Your task to perform on an android device: install app "Facebook Lite" Image 0: 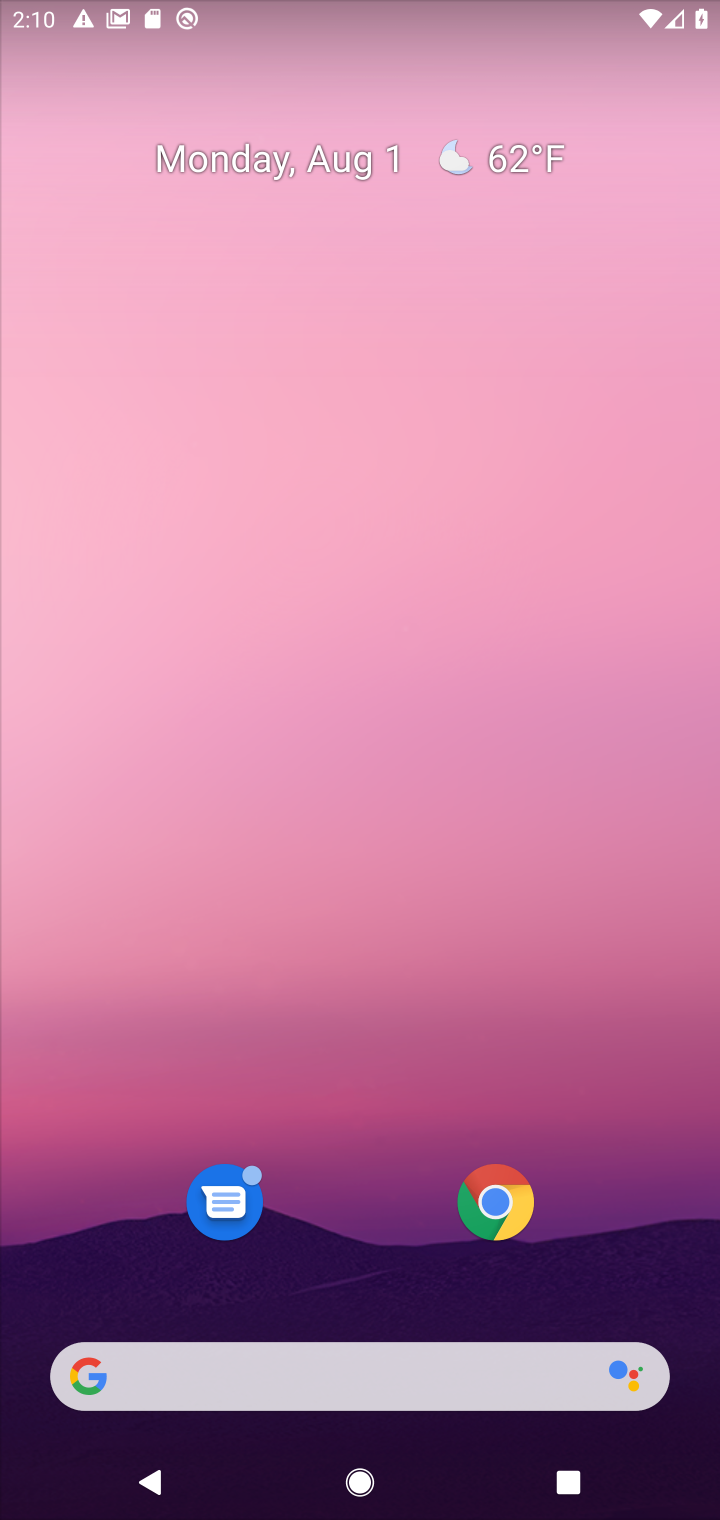
Step 0: drag from (314, 1261) to (94, 0)
Your task to perform on an android device: install app "Facebook Lite" Image 1: 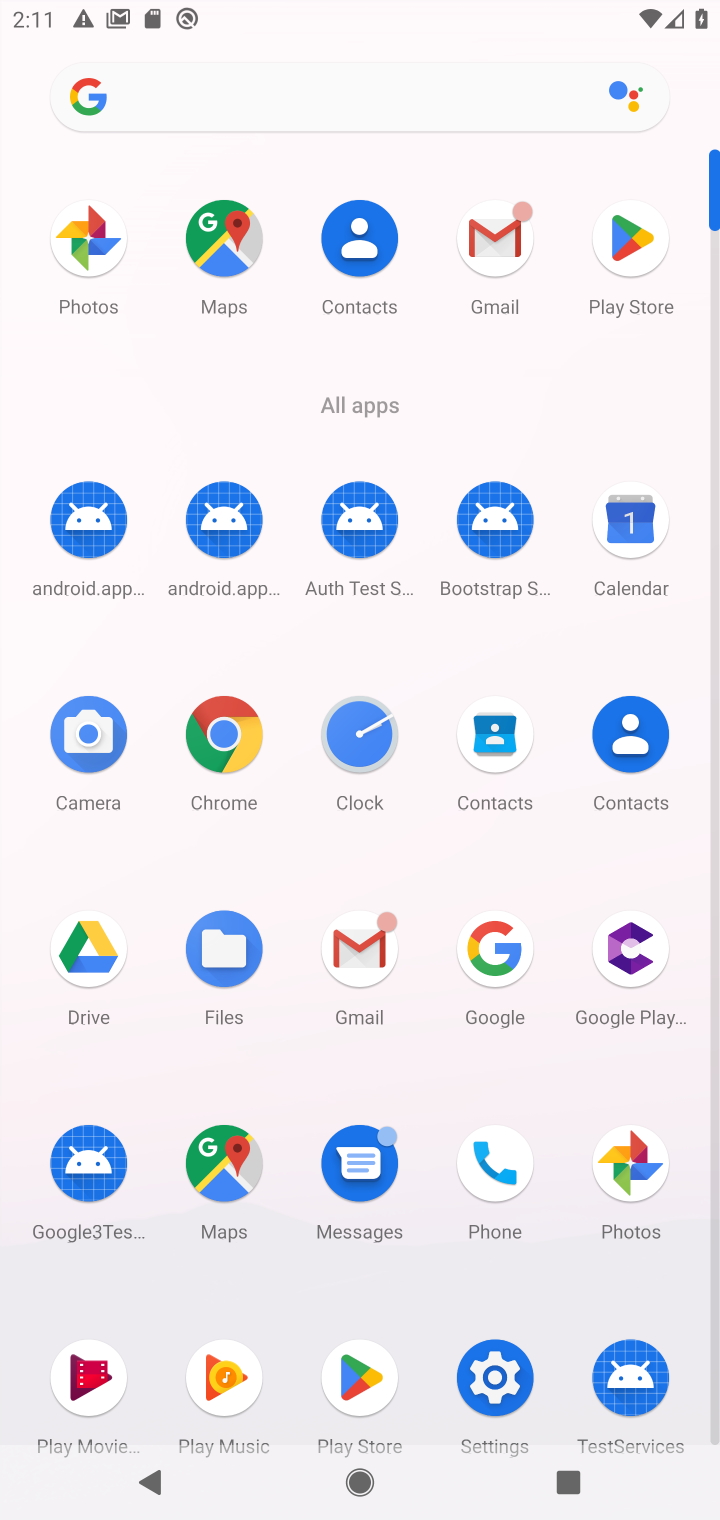
Step 1: click (636, 245)
Your task to perform on an android device: install app "Facebook Lite" Image 2: 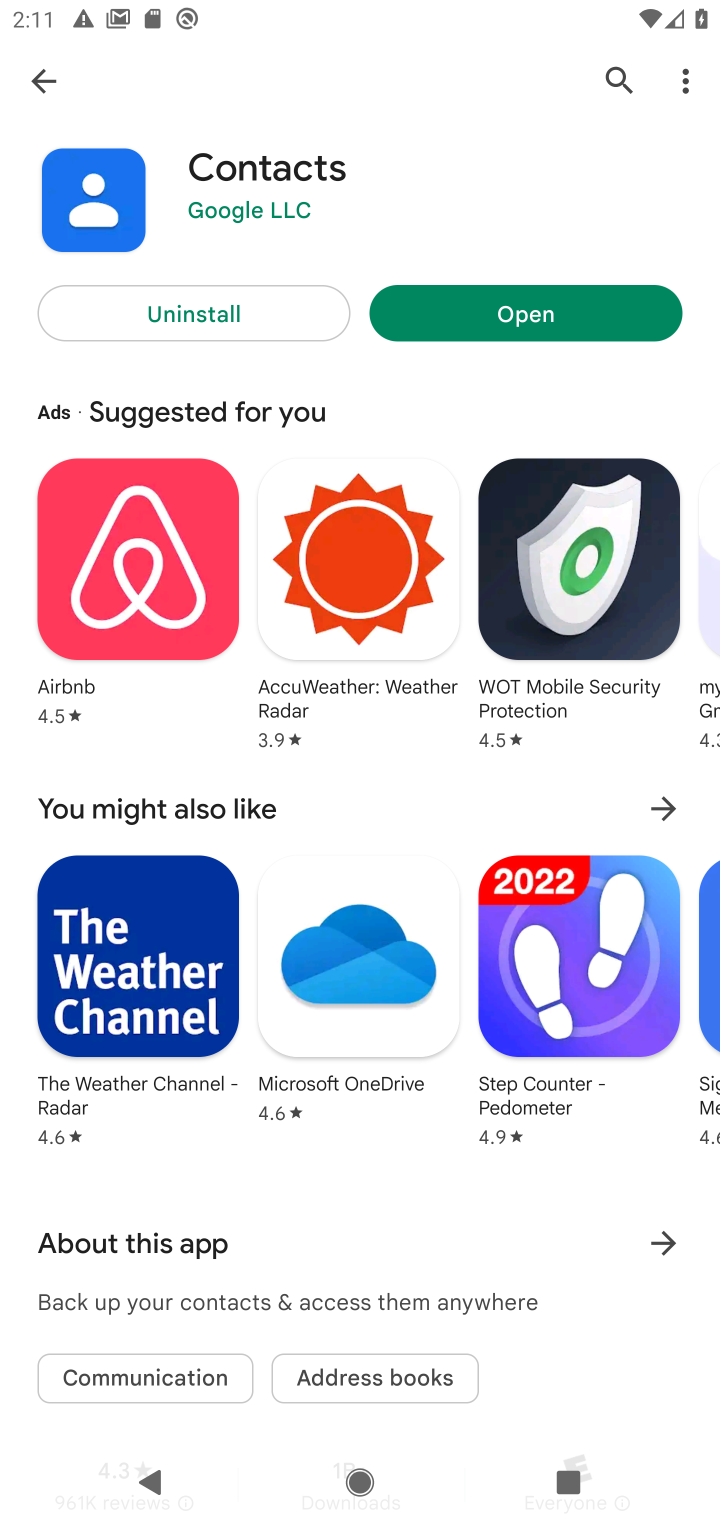
Step 2: click (601, 87)
Your task to perform on an android device: install app "Facebook Lite" Image 3: 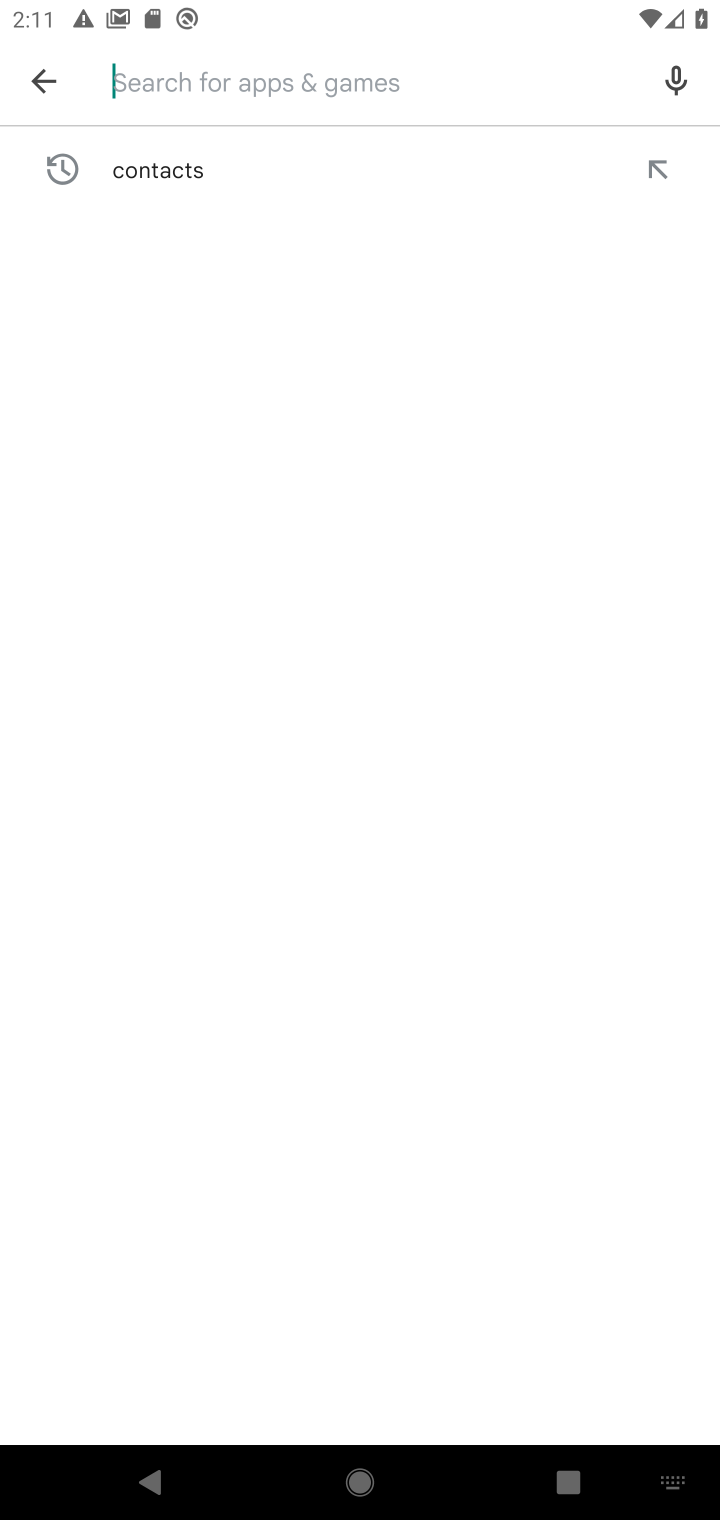
Step 3: type "facebook lite"
Your task to perform on an android device: install app "Facebook Lite" Image 4: 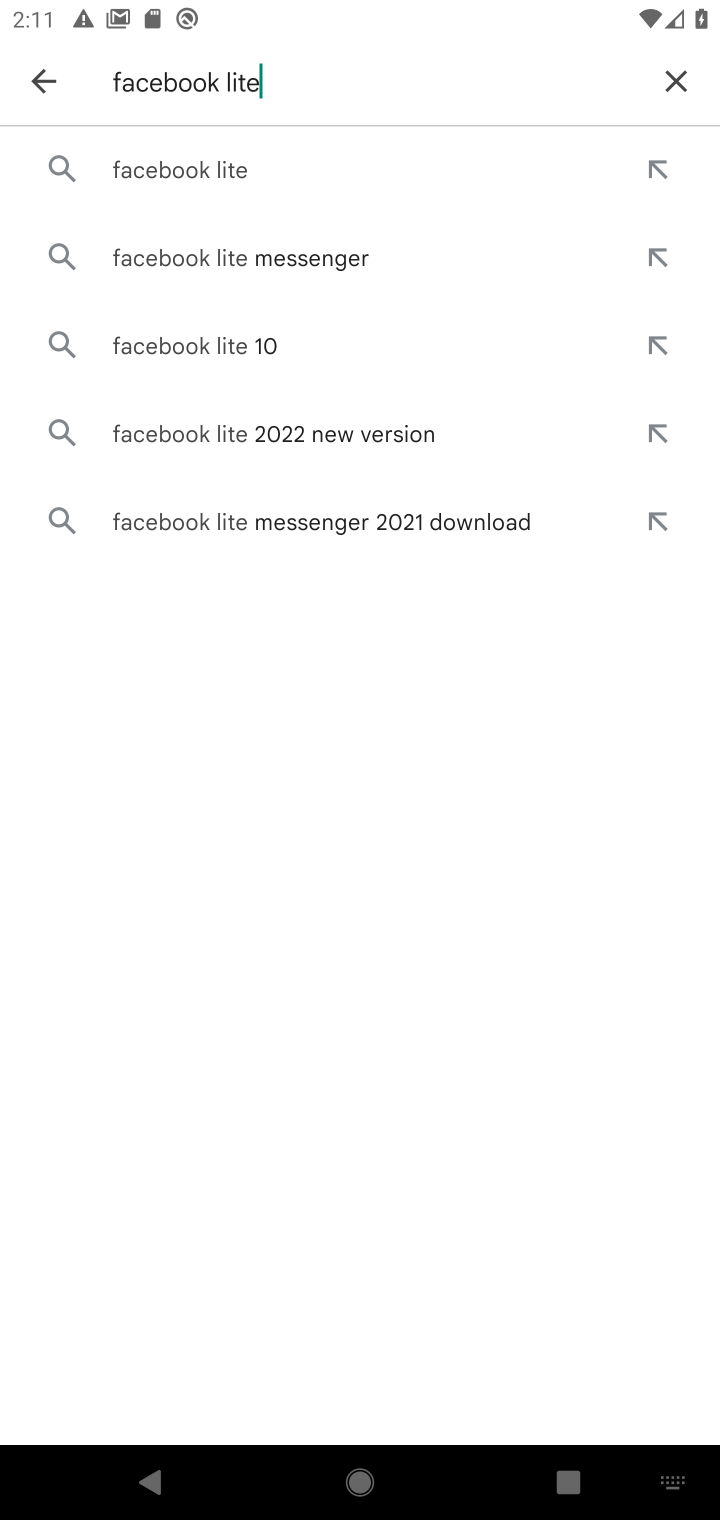
Step 4: click (262, 175)
Your task to perform on an android device: install app "Facebook Lite" Image 5: 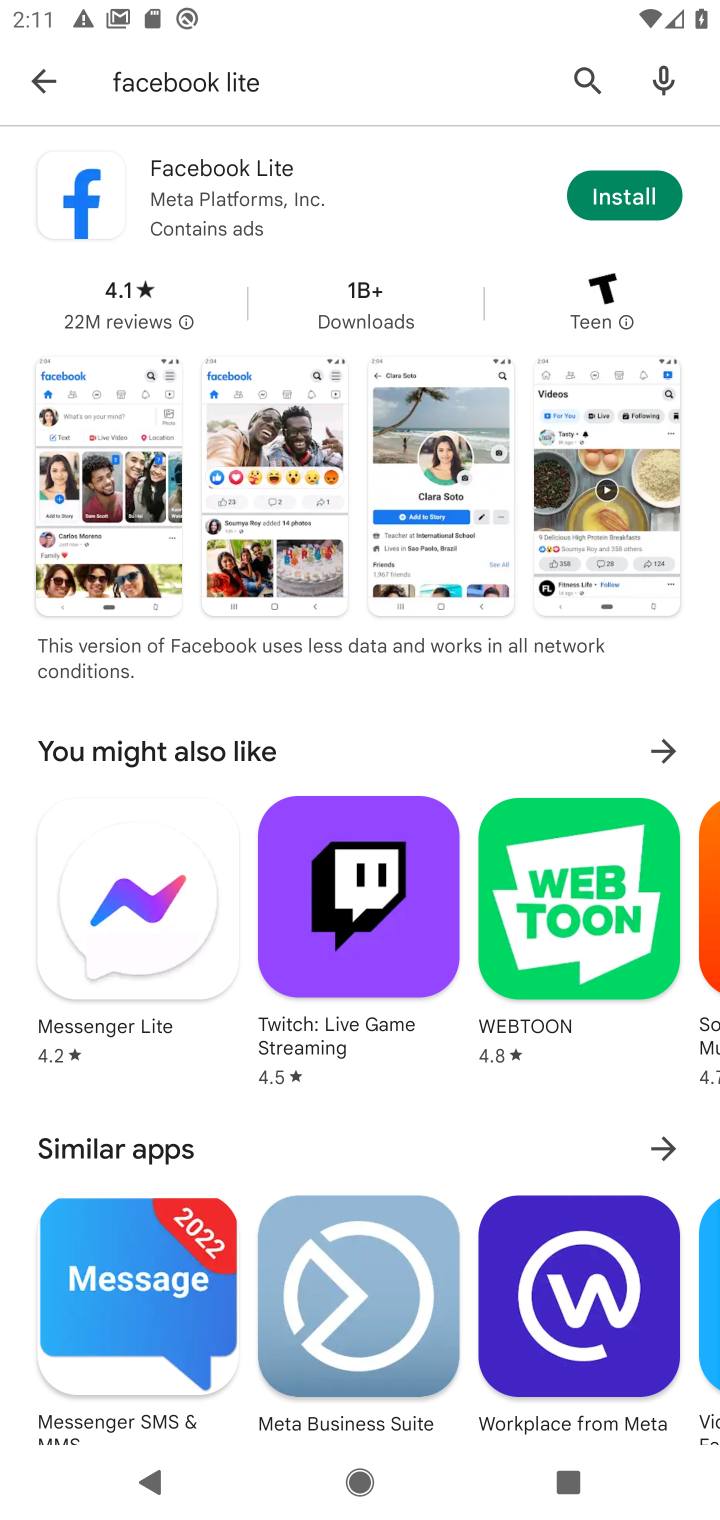
Step 5: click (275, 171)
Your task to perform on an android device: install app "Facebook Lite" Image 6: 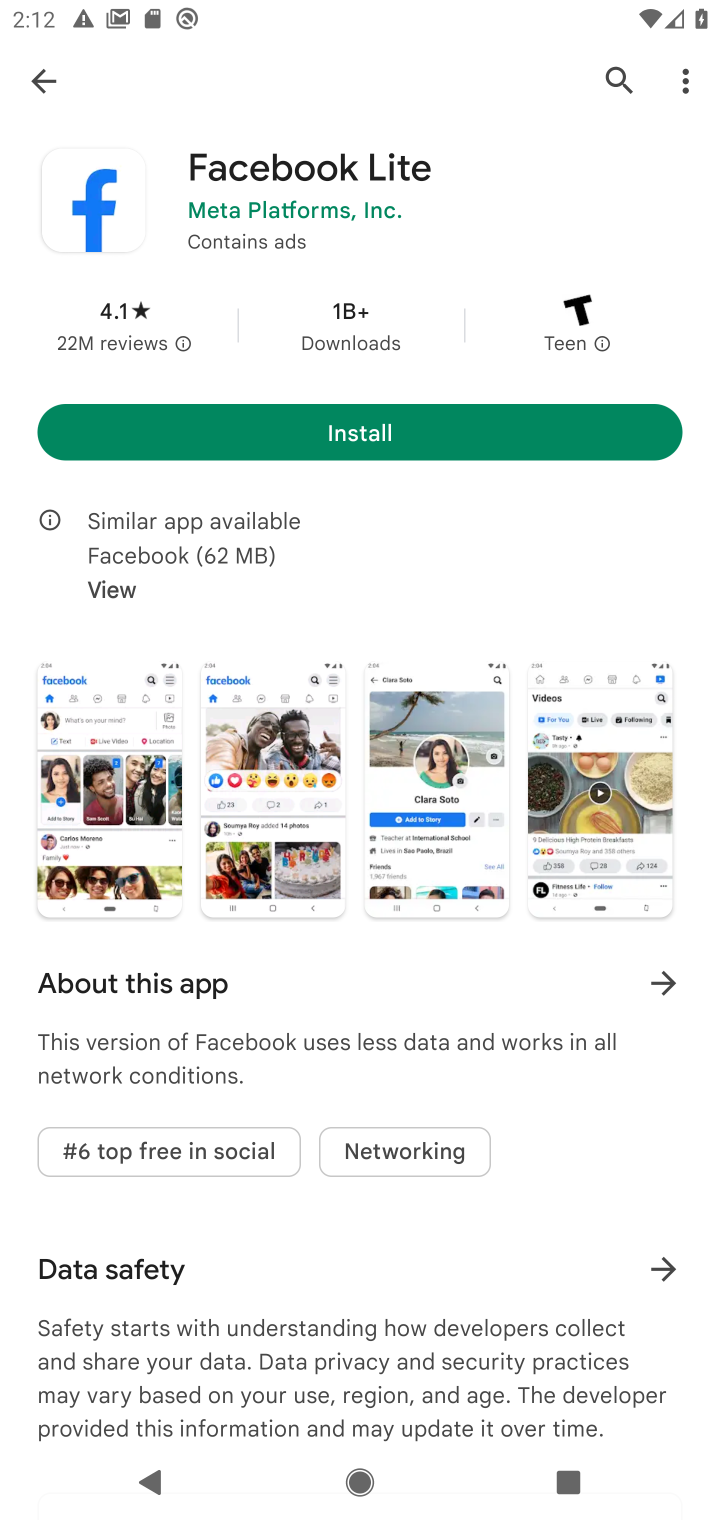
Step 6: click (341, 427)
Your task to perform on an android device: install app "Facebook Lite" Image 7: 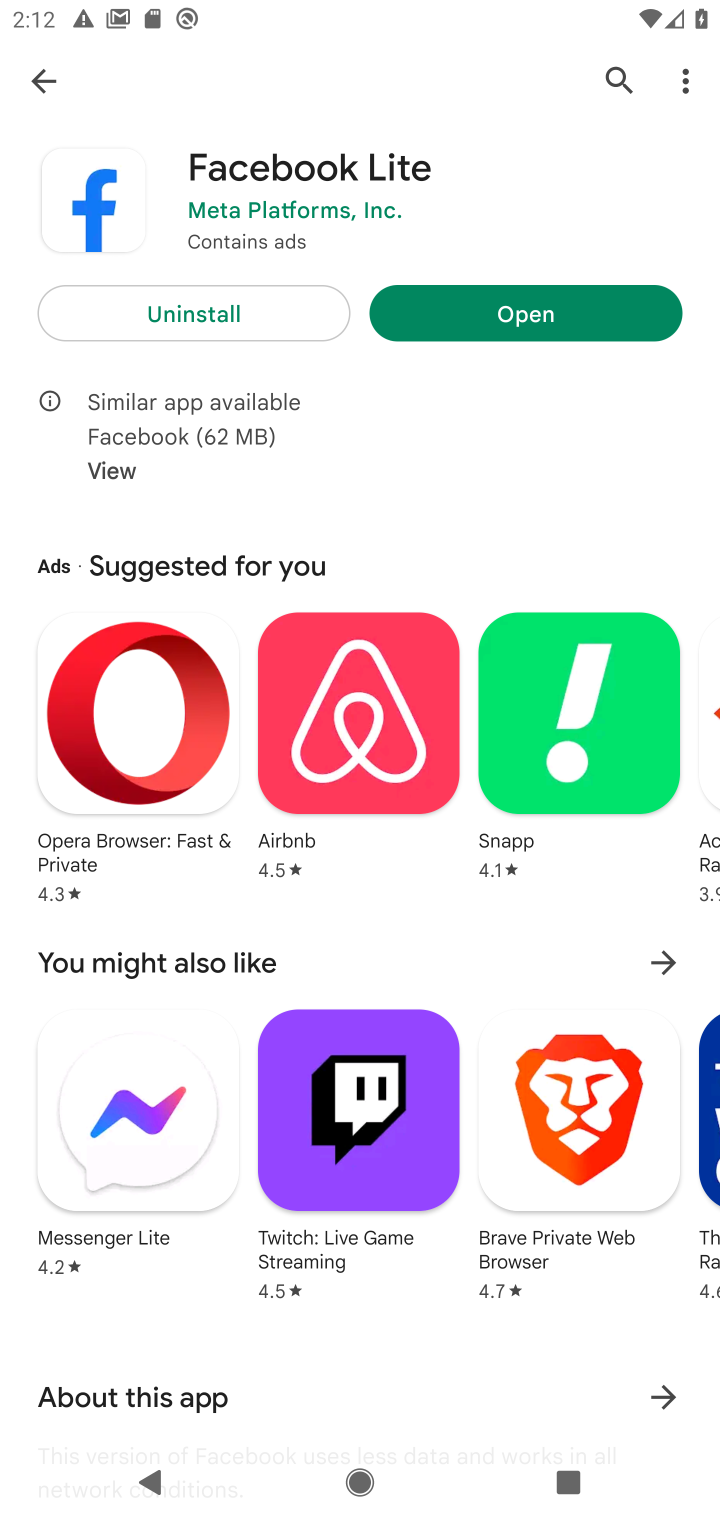
Step 7: task complete